Your task to perform on an android device: see creations saved in the google photos Image 0: 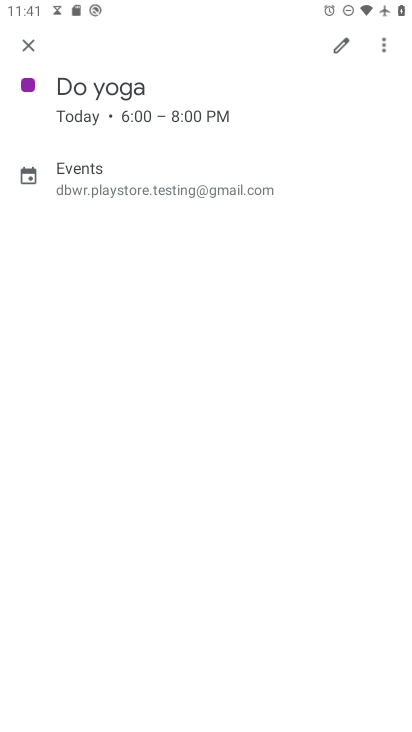
Step 0: press home button
Your task to perform on an android device: see creations saved in the google photos Image 1: 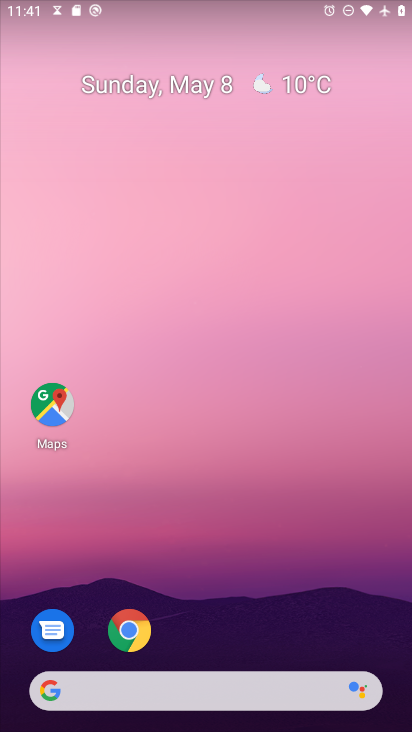
Step 1: drag from (191, 690) to (337, 179)
Your task to perform on an android device: see creations saved in the google photos Image 2: 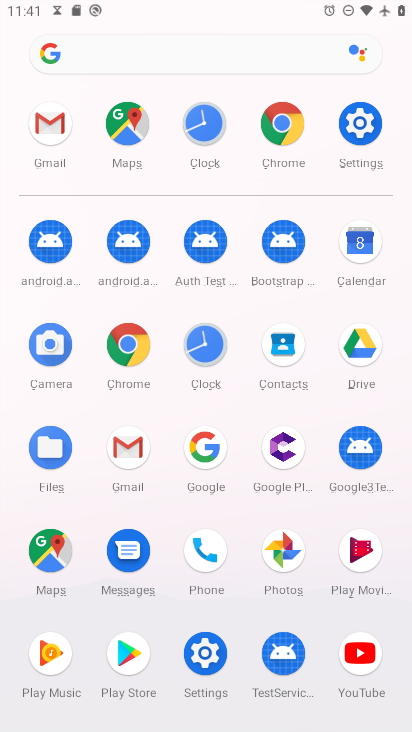
Step 2: click (289, 553)
Your task to perform on an android device: see creations saved in the google photos Image 3: 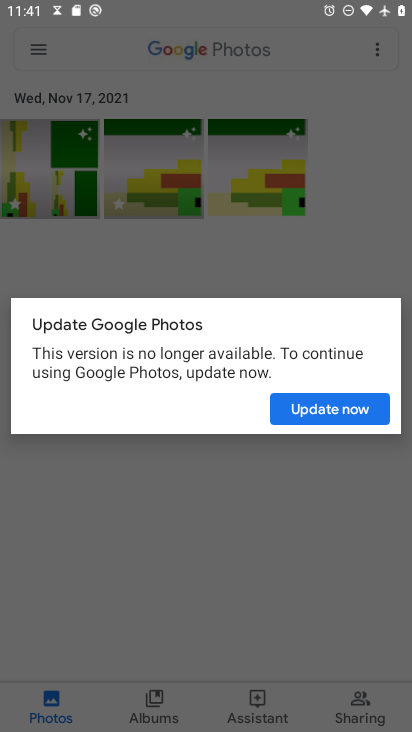
Step 3: click (335, 404)
Your task to perform on an android device: see creations saved in the google photos Image 4: 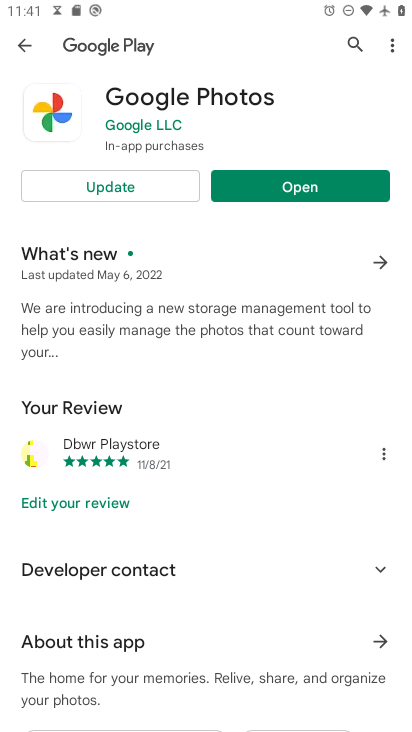
Step 4: click (349, 186)
Your task to perform on an android device: see creations saved in the google photos Image 5: 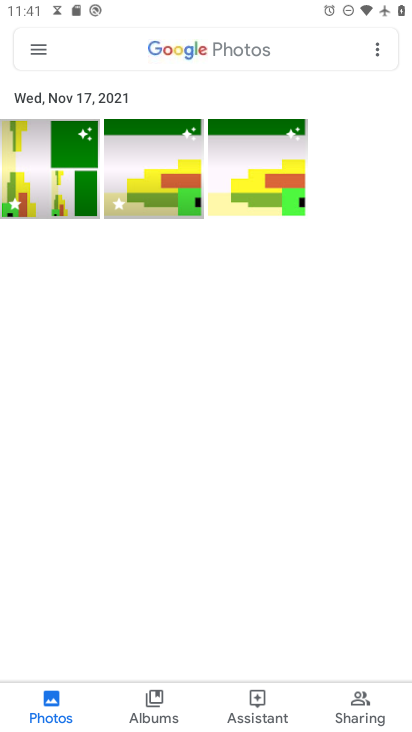
Step 5: click (150, 706)
Your task to perform on an android device: see creations saved in the google photos Image 6: 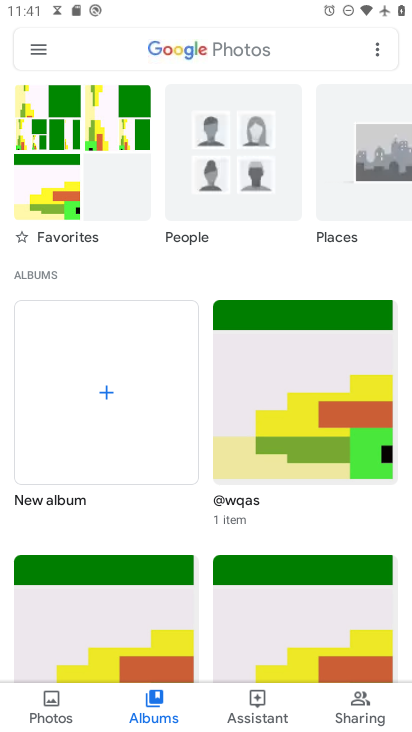
Step 6: click (149, 49)
Your task to perform on an android device: see creations saved in the google photos Image 7: 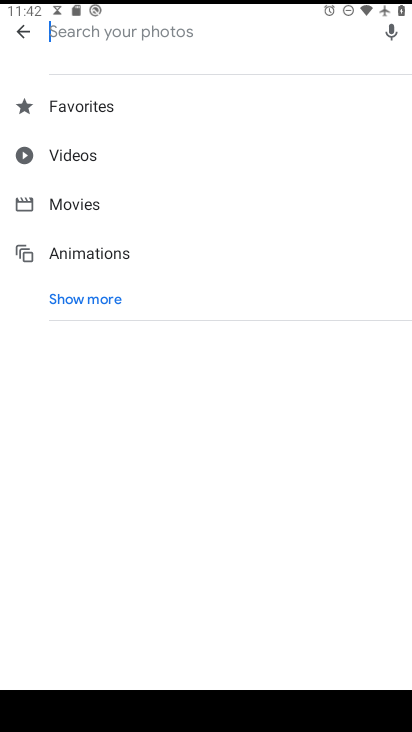
Step 7: click (106, 297)
Your task to perform on an android device: see creations saved in the google photos Image 8: 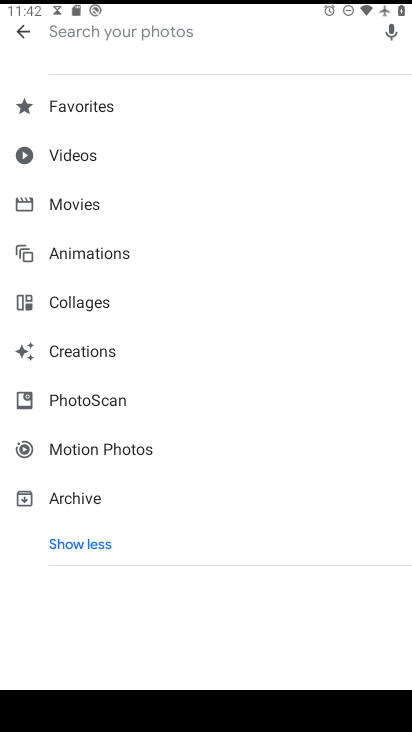
Step 8: click (94, 352)
Your task to perform on an android device: see creations saved in the google photos Image 9: 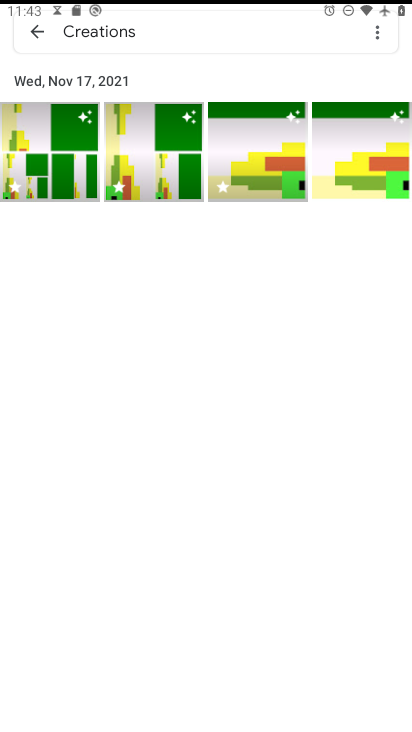
Step 9: task complete